Your task to perform on an android device: show emergency info Image 0: 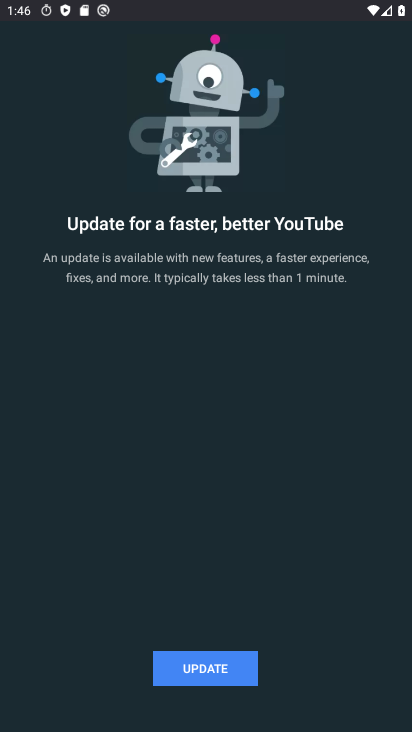
Step 0: click (123, 632)
Your task to perform on an android device: show emergency info Image 1: 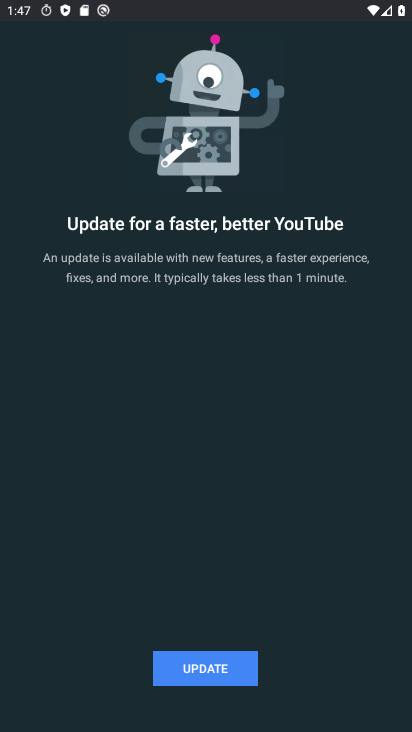
Step 1: press home button
Your task to perform on an android device: show emergency info Image 2: 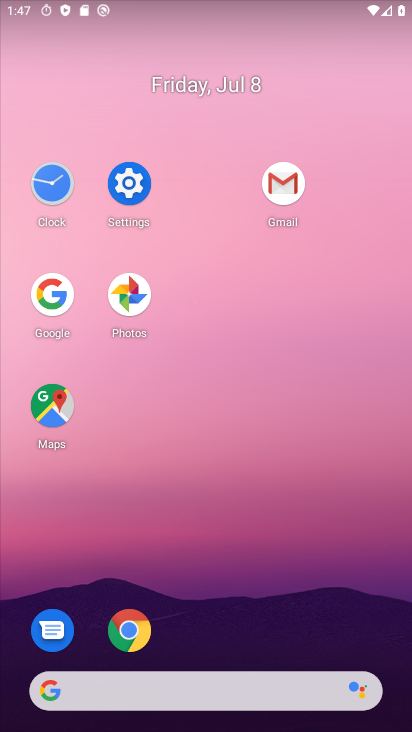
Step 2: click (132, 174)
Your task to perform on an android device: show emergency info Image 3: 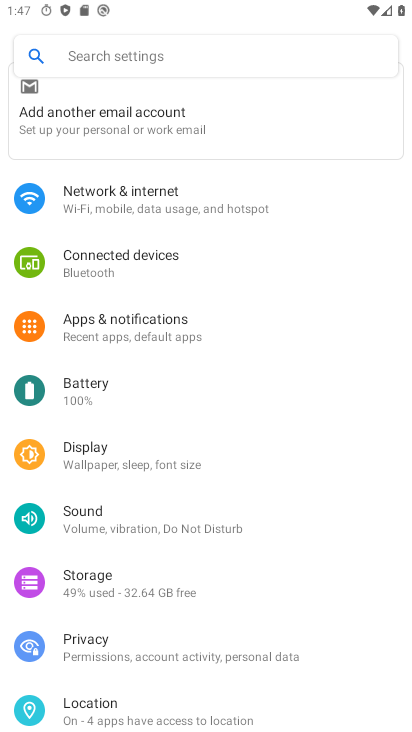
Step 3: drag from (236, 648) to (239, 253)
Your task to perform on an android device: show emergency info Image 4: 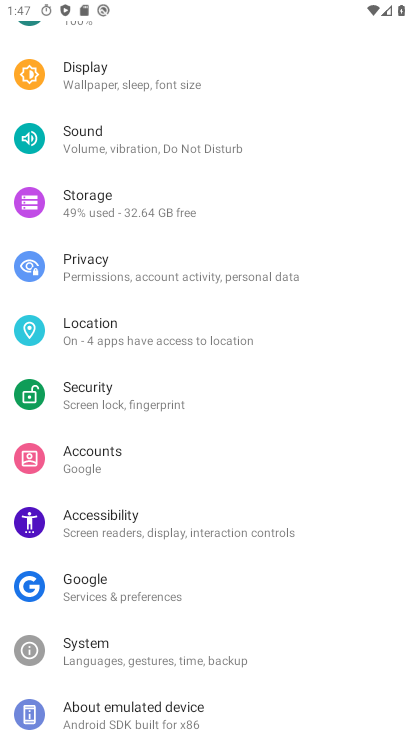
Step 4: drag from (237, 595) to (217, 220)
Your task to perform on an android device: show emergency info Image 5: 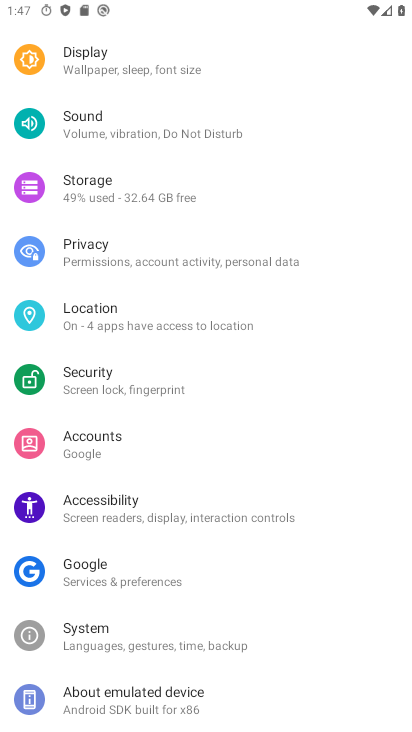
Step 5: click (167, 695)
Your task to perform on an android device: show emergency info Image 6: 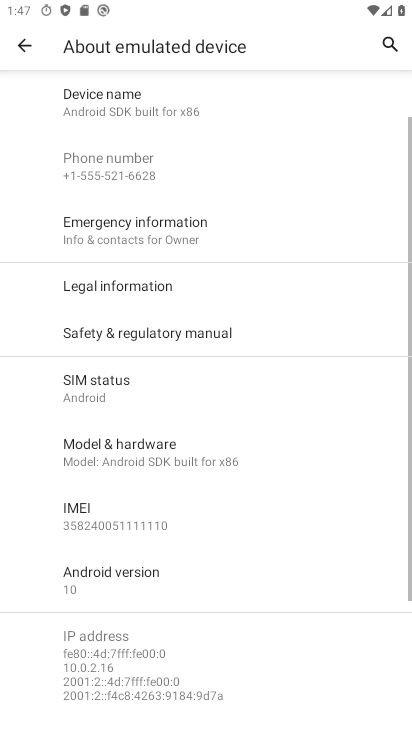
Step 6: click (169, 248)
Your task to perform on an android device: show emergency info Image 7: 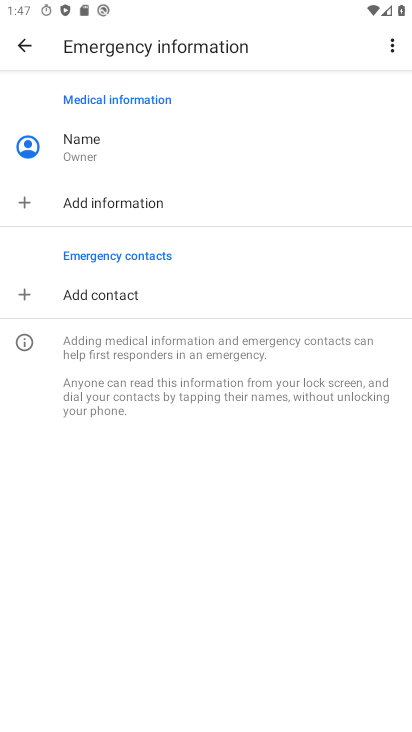
Step 7: task complete